Your task to perform on an android device: Search for vegetarian restaurants on Maps Image 0: 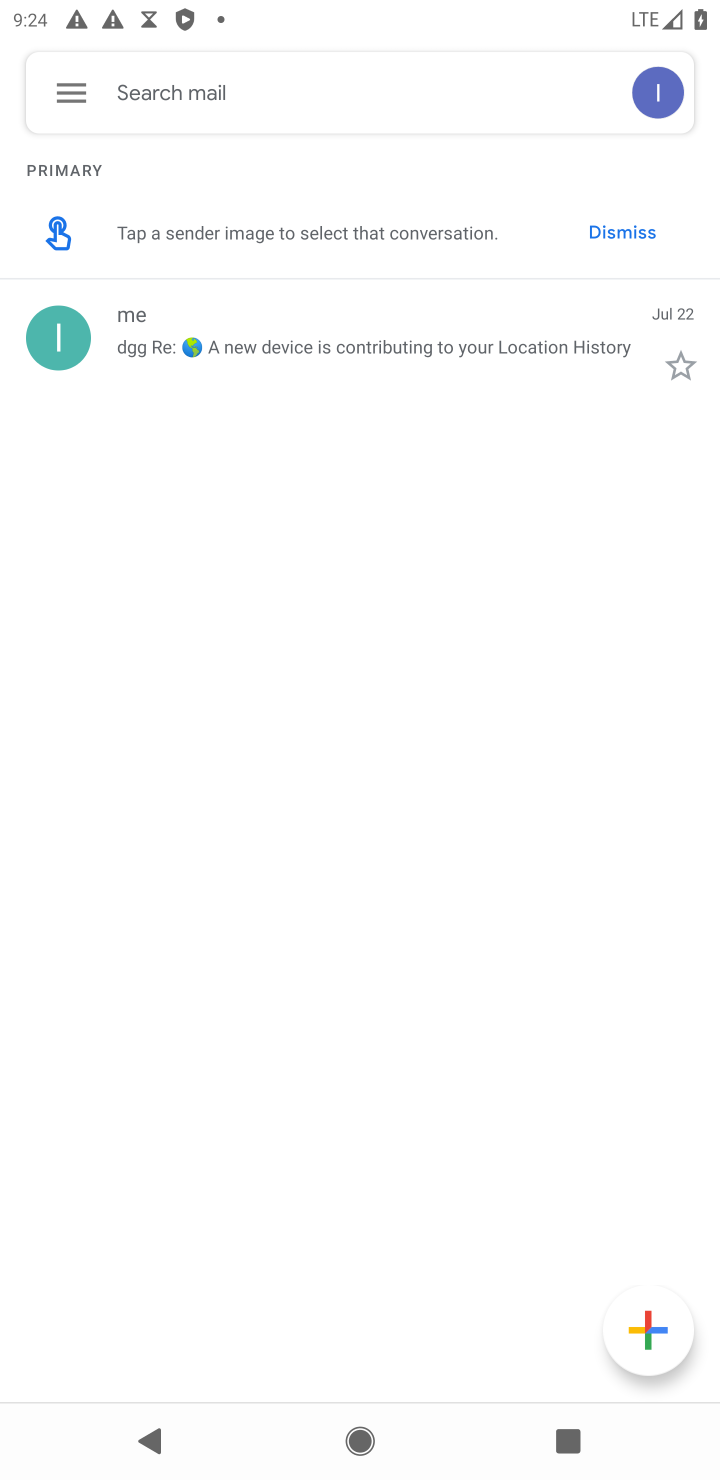
Step 0: press back button
Your task to perform on an android device: Search for vegetarian restaurants on Maps Image 1: 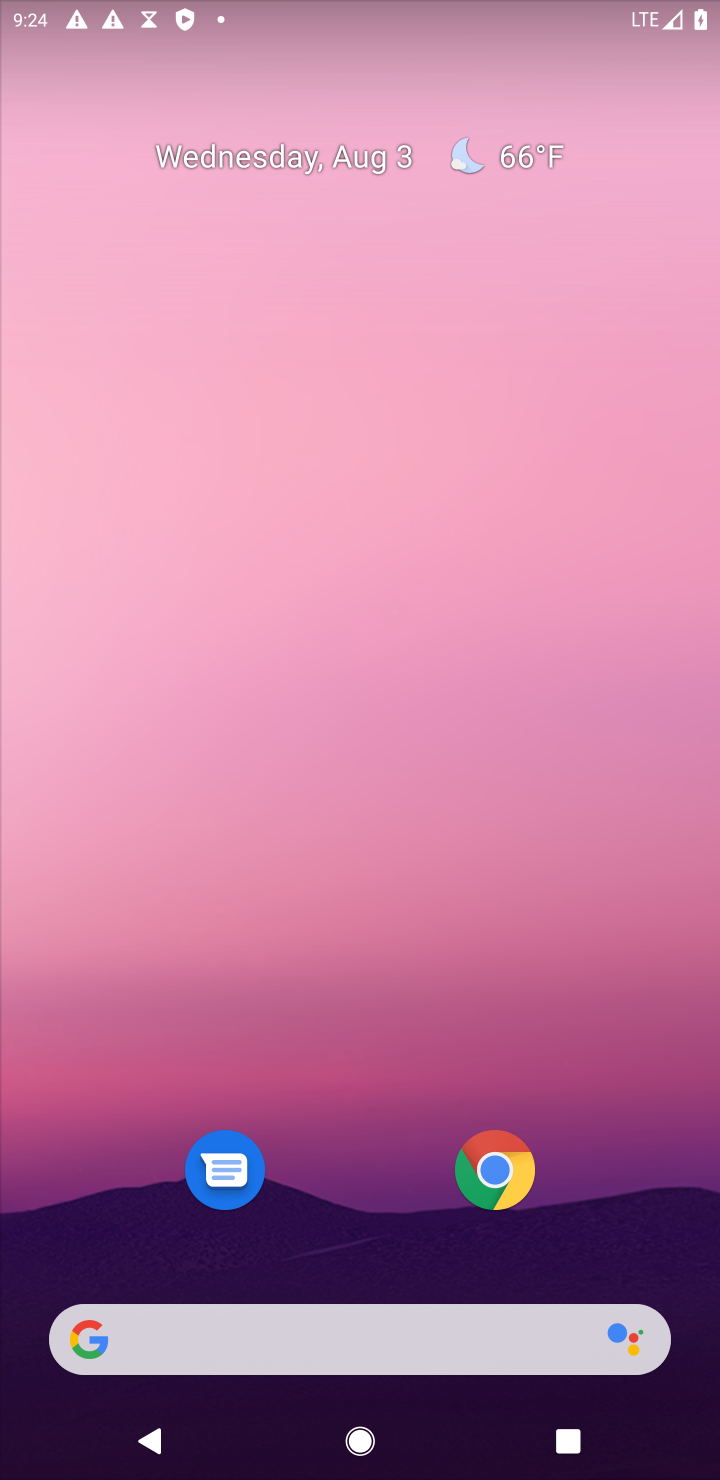
Step 1: drag from (640, 1263) to (576, 127)
Your task to perform on an android device: Search for vegetarian restaurants on Maps Image 2: 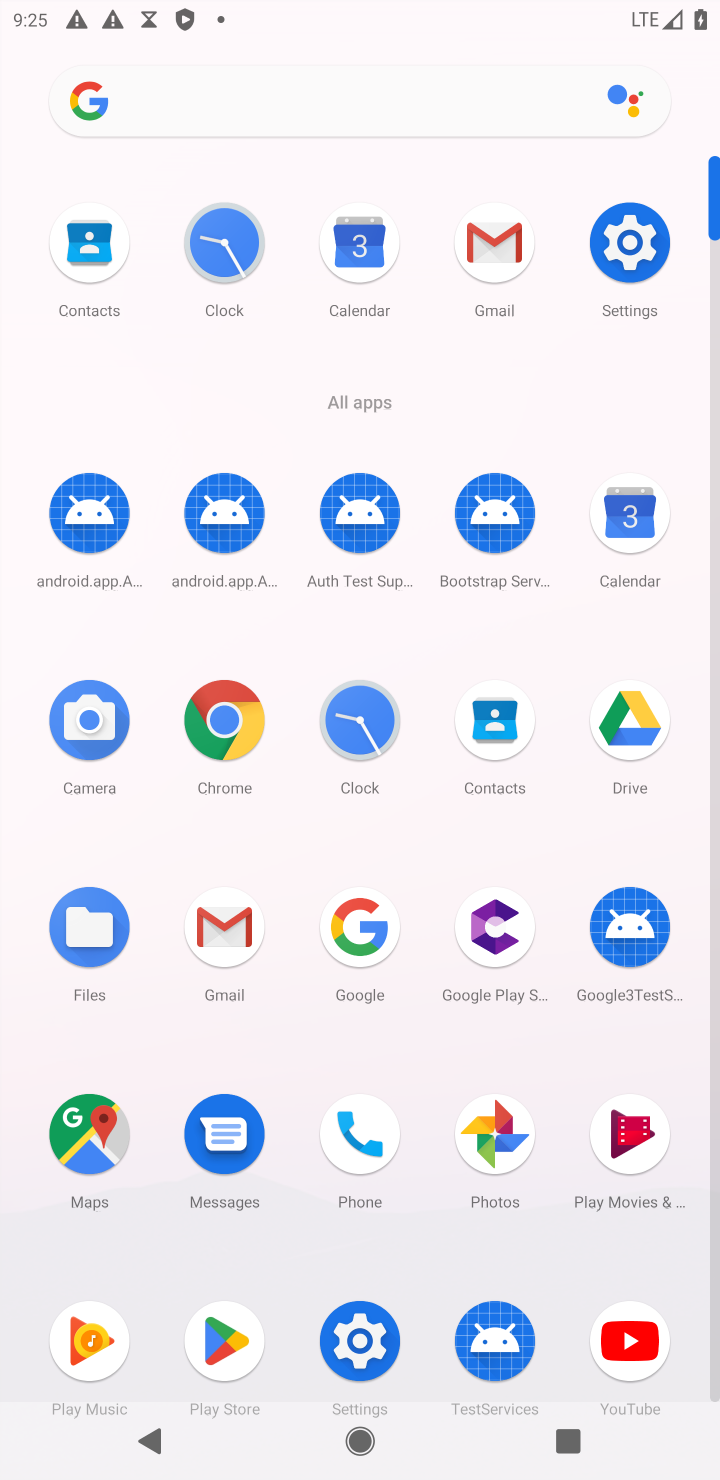
Step 2: click (93, 1168)
Your task to perform on an android device: Search for vegetarian restaurants on Maps Image 3: 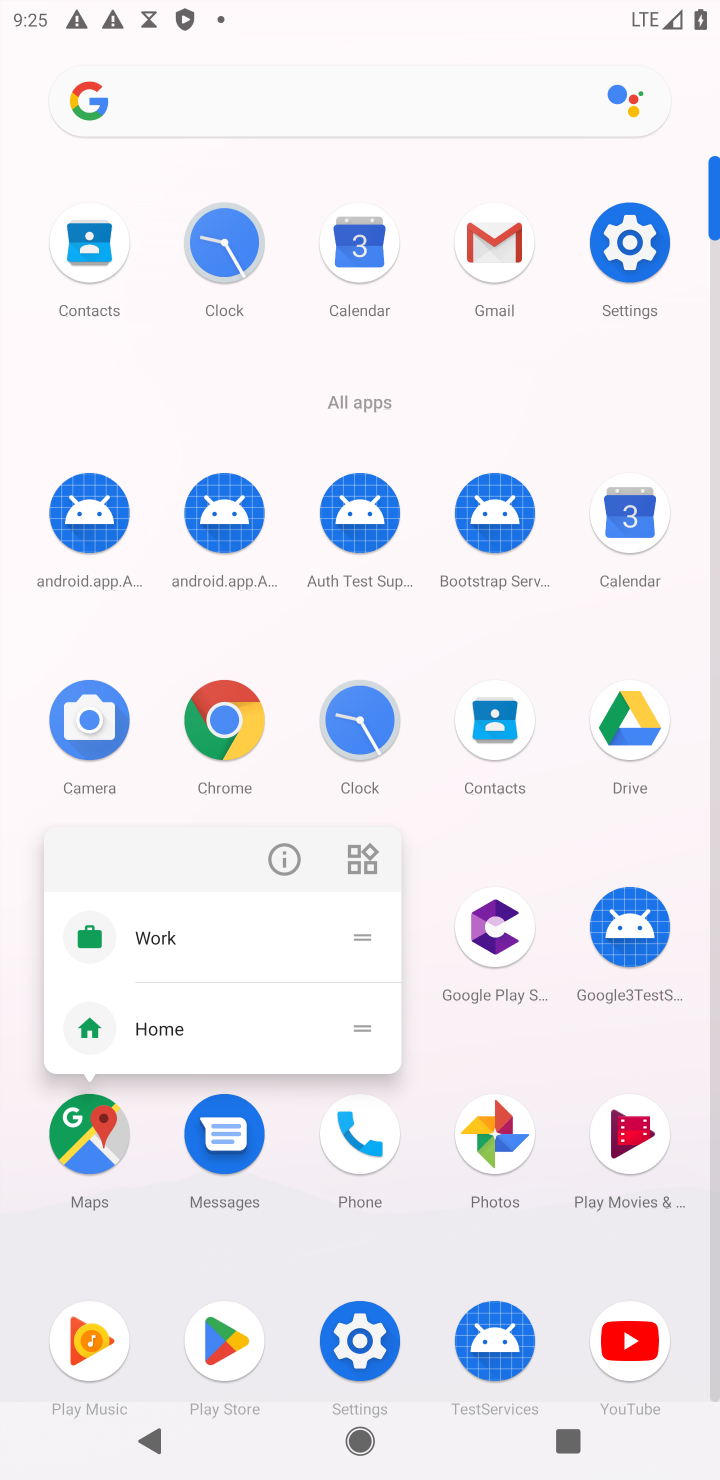
Step 3: click (73, 1118)
Your task to perform on an android device: Search for vegetarian restaurants on Maps Image 4: 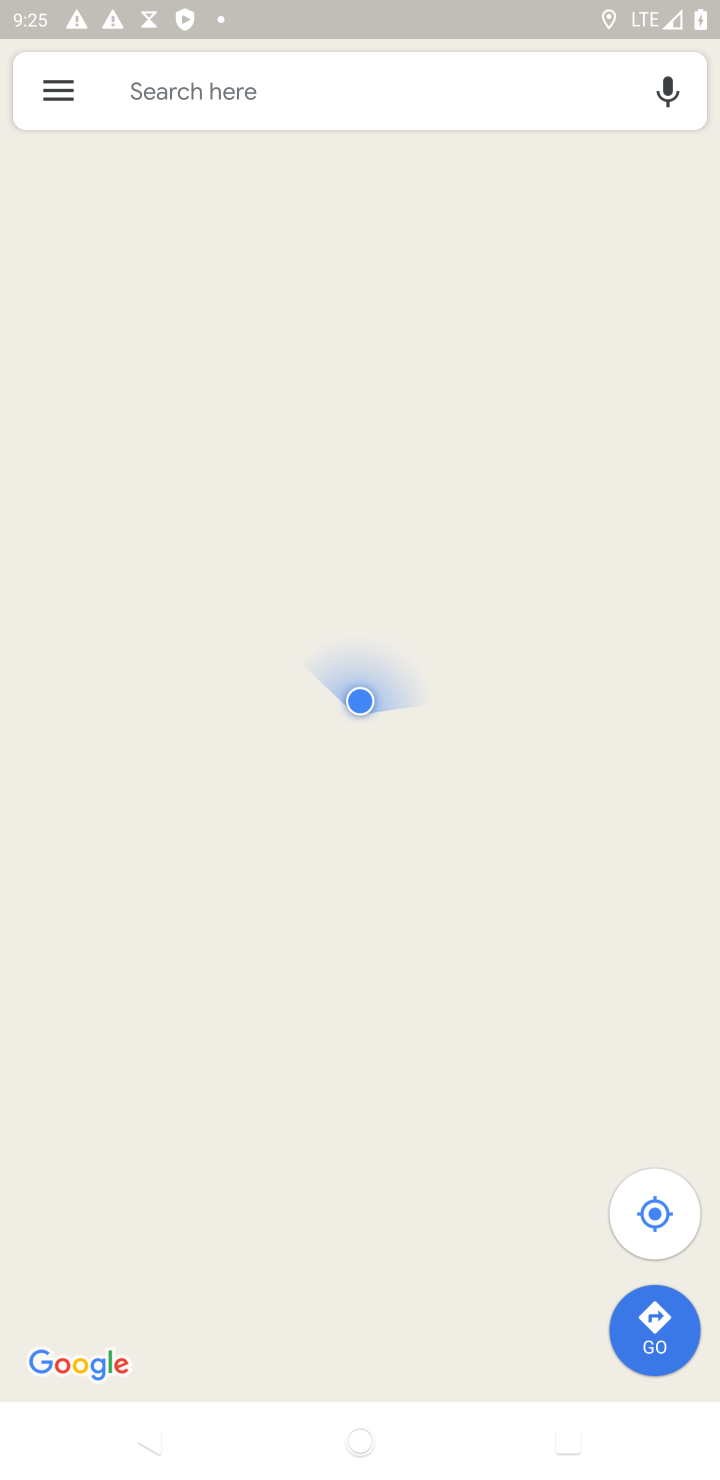
Step 4: click (157, 123)
Your task to perform on an android device: Search for vegetarian restaurants on Maps Image 5: 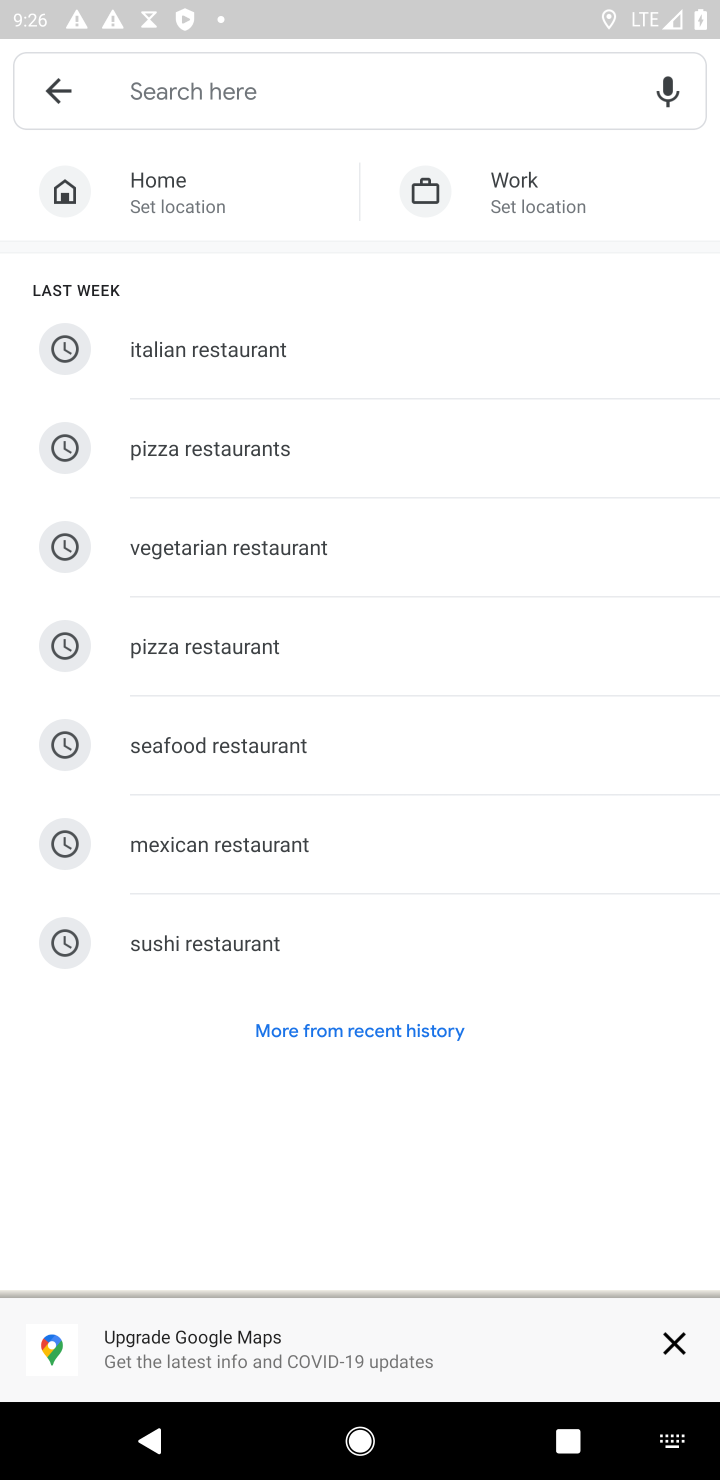
Step 5: click (328, 554)
Your task to perform on an android device: Search for vegetarian restaurants on Maps Image 6: 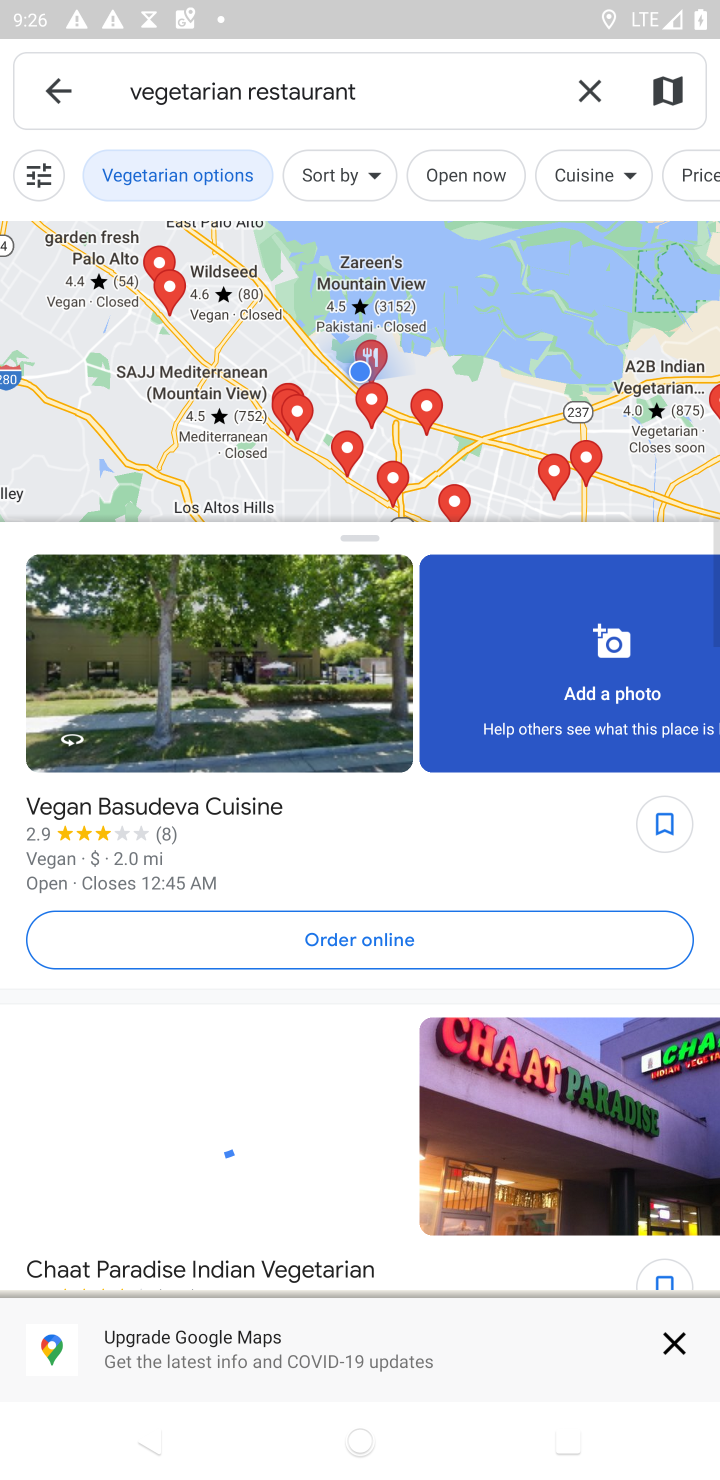
Step 6: task complete